Your task to perform on an android device: Go to battery settings Image 0: 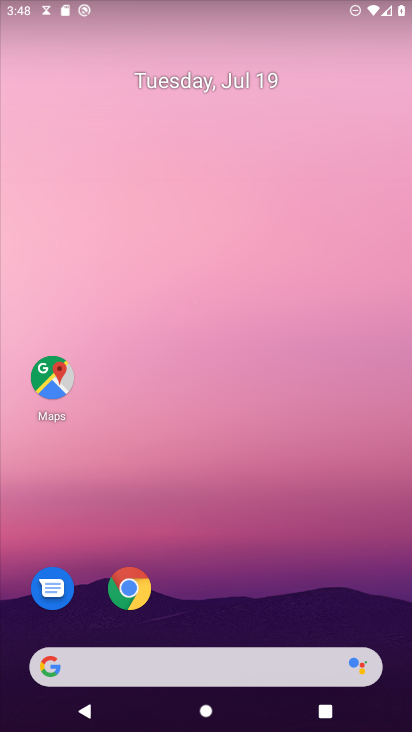
Step 0: click (183, 625)
Your task to perform on an android device: Go to battery settings Image 1: 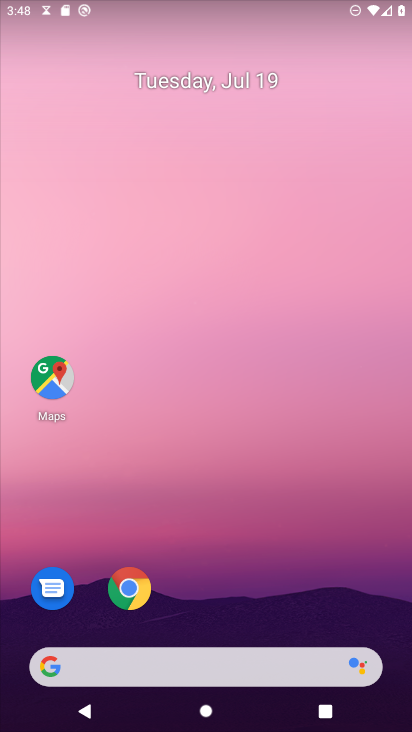
Step 1: drag from (184, 589) to (175, 202)
Your task to perform on an android device: Go to battery settings Image 2: 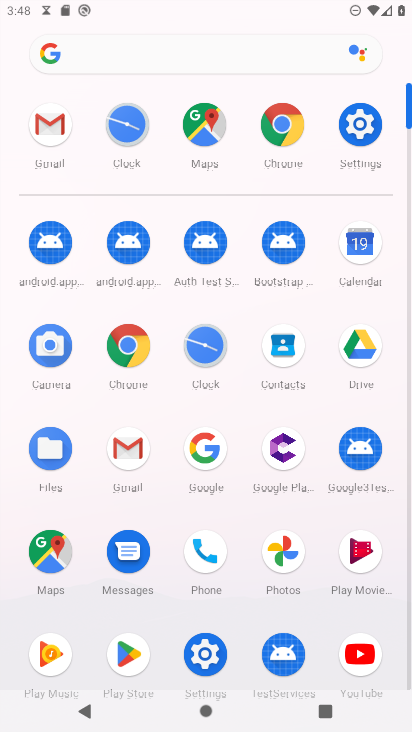
Step 2: click (216, 643)
Your task to perform on an android device: Go to battery settings Image 3: 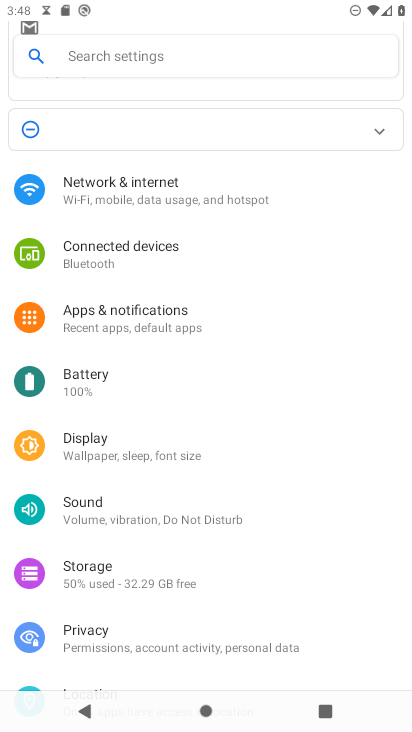
Step 3: click (91, 382)
Your task to perform on an android device: Go to battery settings Image 4: 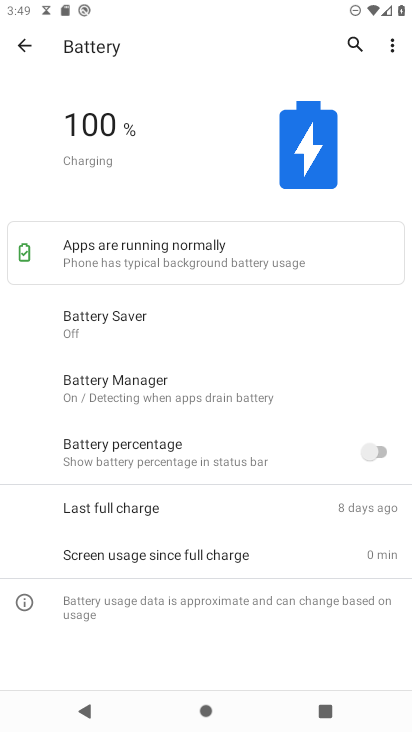
Step 4: task complete